Your task to perform on an android device: turn off location Image 0: 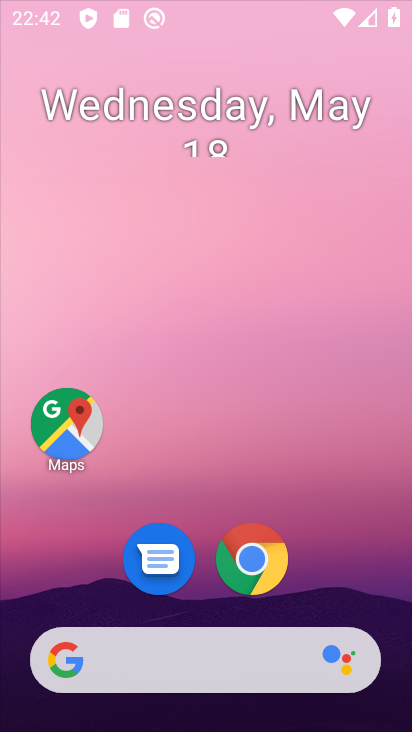
Step 0: click (217, 662)
Your task to perform on an android device: turn off location Image 1: 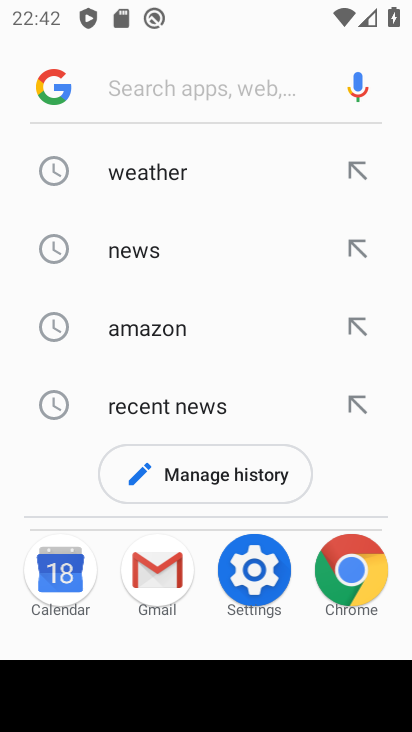
Step 1: press home button
Your task to perform on an android device: turn off location Image 2: 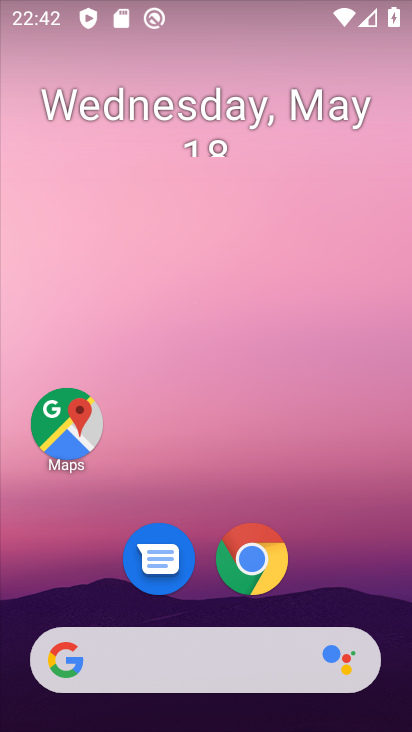
Step 2: drag from (298, 597) to (329, 170)
Your task to perform on an android device: turn off location Image 3: 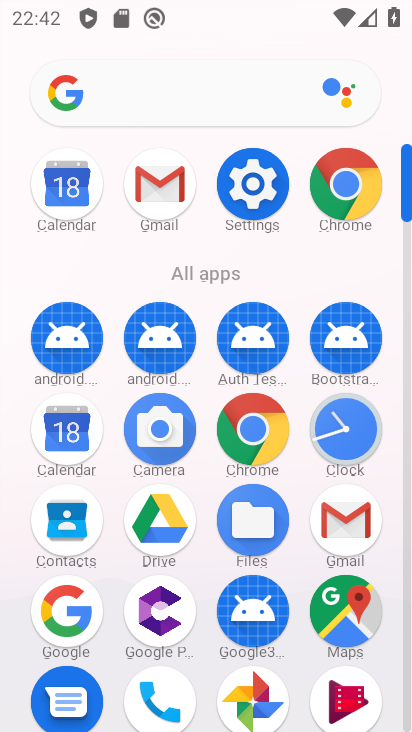
Step 3: click (259, 201)
Your task to perform on an android device: turn off location Image 4: 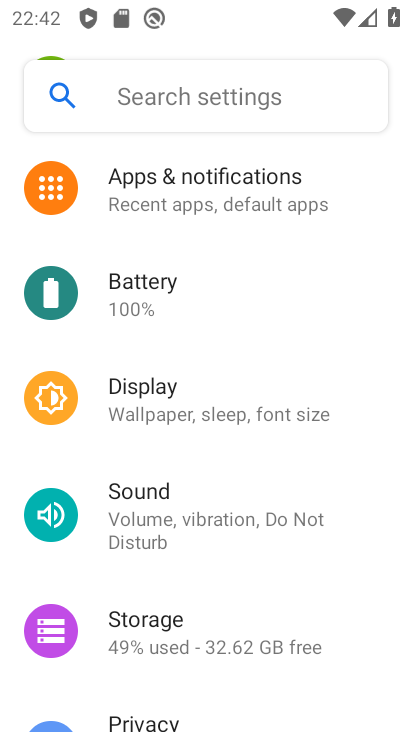
Step 4: drag from (177, 651) to (183, 316)
Your task to perform on an android device: turn off location Image 5: 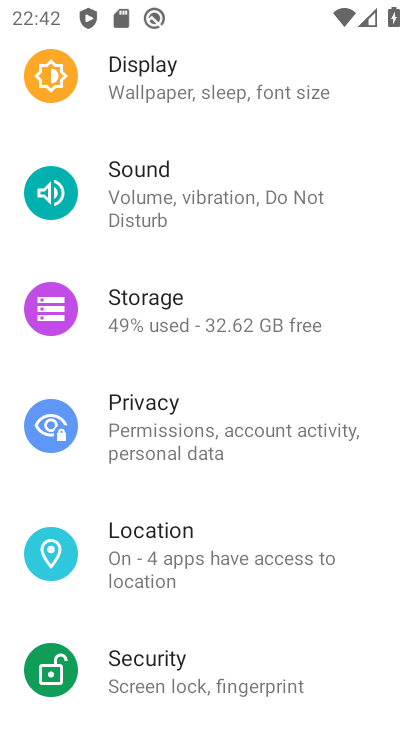
Step 5: click (142, 560)
Your task to perform on an android device: turn off location Image 6: 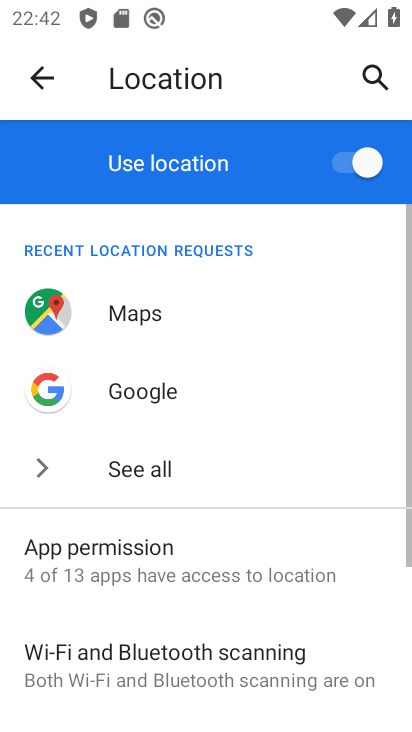
Step 6: click (358, 163)
Your task to perform on an android device: turn off location Image 7: 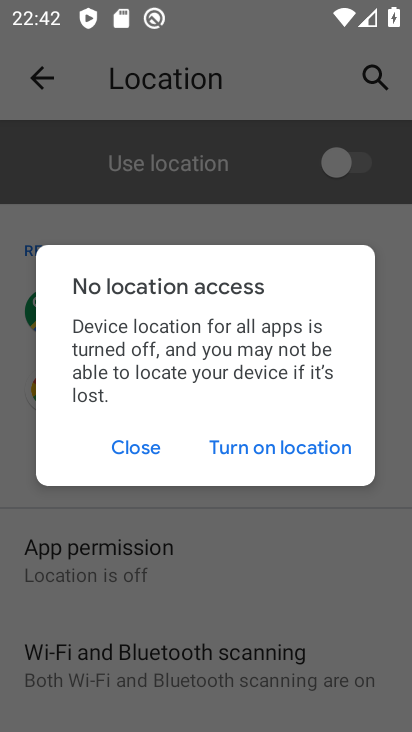
Step 7: click (127, 455)
Your task to perform on an android device: turn off location Image 8: 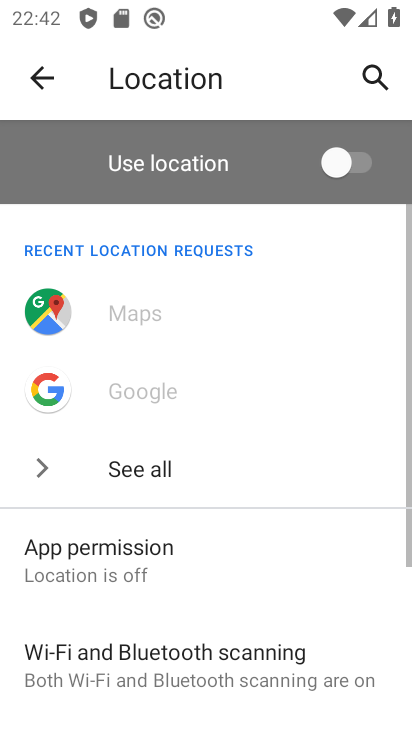
Step 8: task complete